Your task to perform on an android device: Go to wifi settings Image 0: 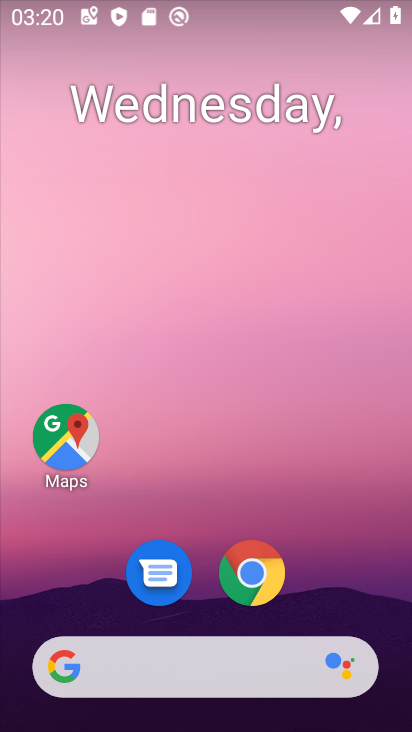
Step 0: drag from (342, 568) to (184, 91)
Your task to perform on an android device: Go to wifi settings Image 1: 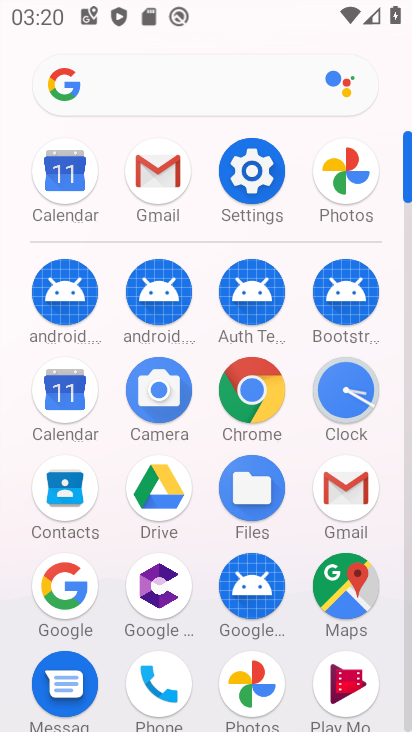
Step 1: click (252, 172)
Your task to perform on an android device: Go to wifi settings Image 2: 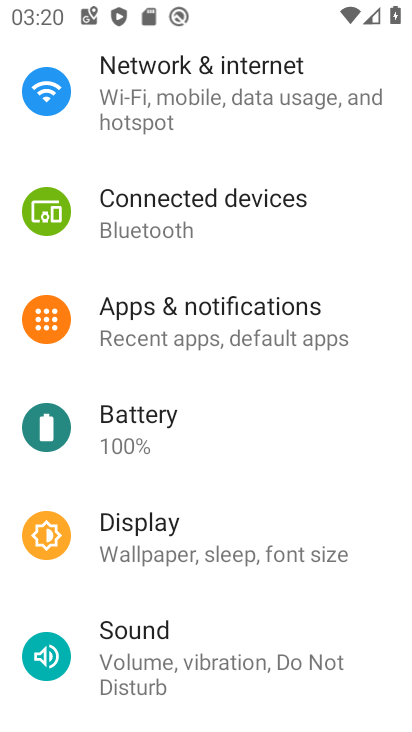
Step 2: drag from (223, 207) to (262, 374)
Your task to perform on an android device: Go to wifi settings Image 3: 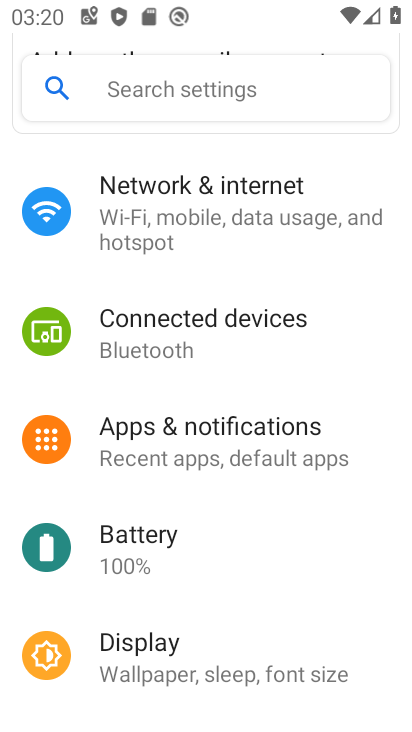
Step 3: click (196, 187)
Your task to perform on an android device: Go to wifi settings Image 4: 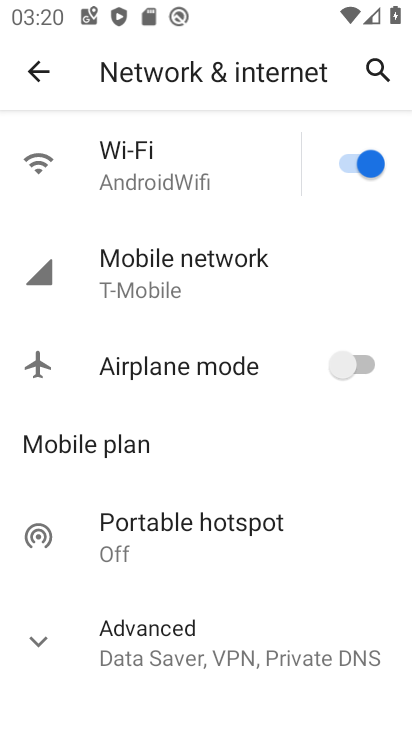
Step 4: click (152, 175)
Your task to perform on an android device: Go to wifi settings Image 5: 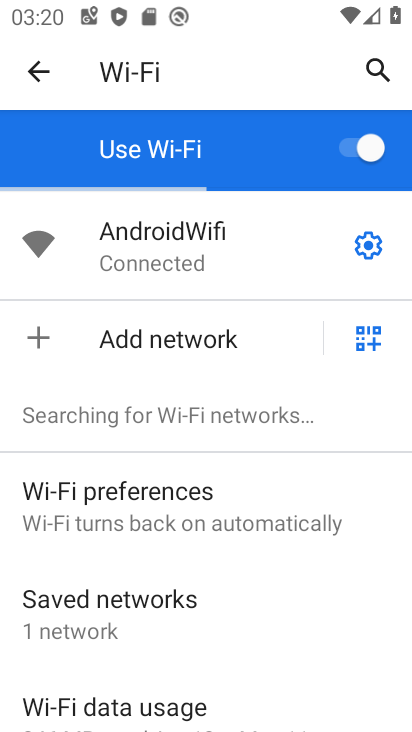
Step 5: click (368, 244)
Your task to perform on an android device: Go to wifi settings Image 6: 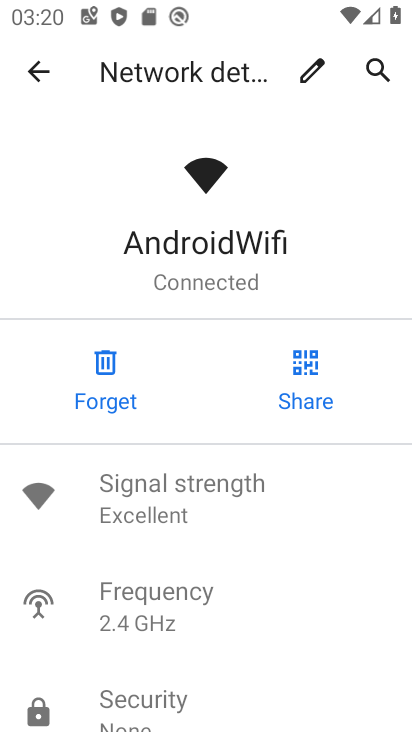
Step 6: task complete